Your task to perform on an android device: Search for "usb-b" on ebay, select the first entry, add it to the cart, then select checkout. Image 0: 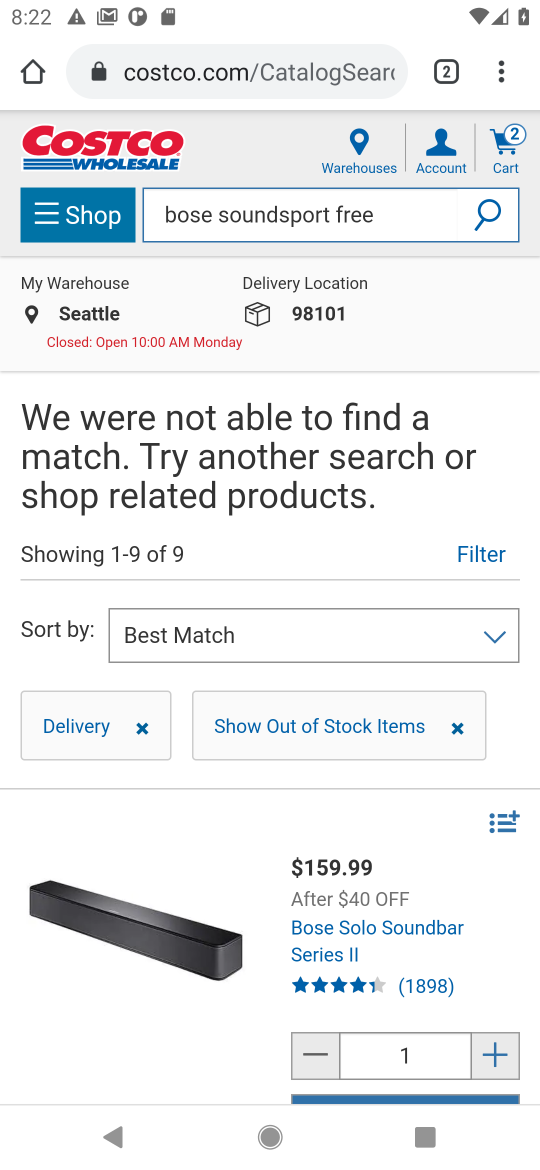
Step 0: click (254, 73)
Your task to perform on an android device: Search for "usb-b" on ebay, select the first entry, add it to the cart, then select checkout. Image 1: 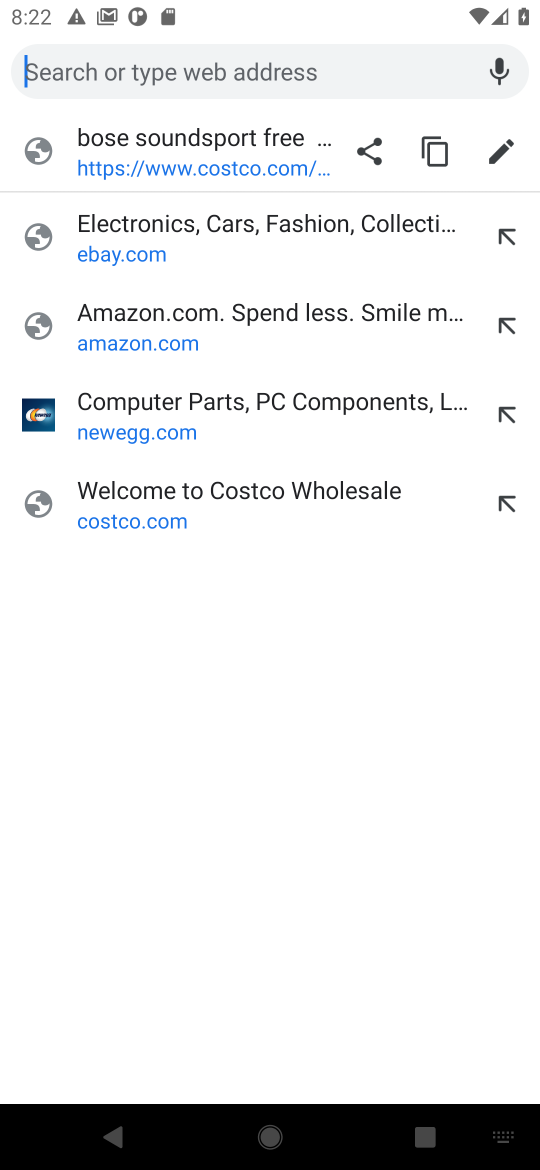
Step 1: click (104, 250)
Your task to perform on an android device: Search for "usb-b" on ebay, select the first entry, add it to the cart, then select checkout. Image 2: 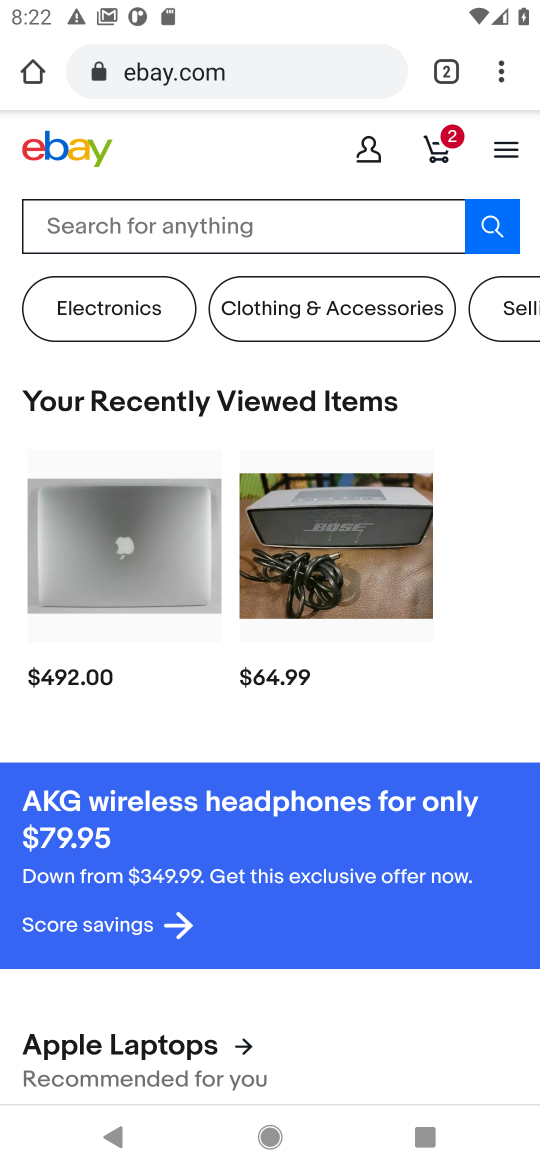
Step 2: click (36, 768)
Your task to perform on an android device: Search for "usb-b" on ebay, select the first entry, add it to the cart, then select checkout. Image 3: 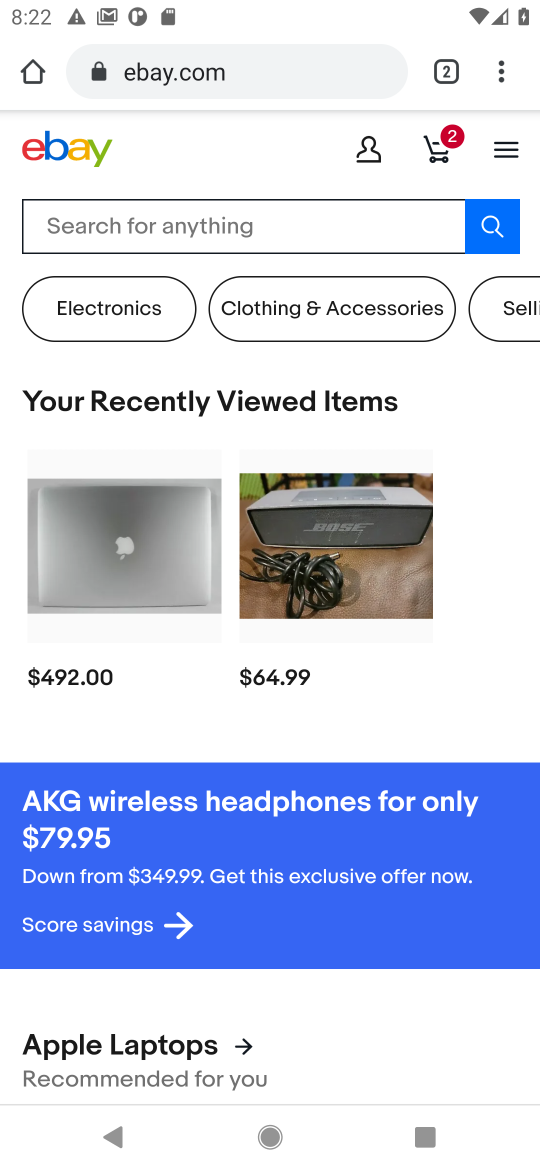
Step 3: click (205, 217)
Your task to perform on an android device: Search for "usb-b" on ebay, select the first entry, add it to the cart, then select checkout. Image 4: 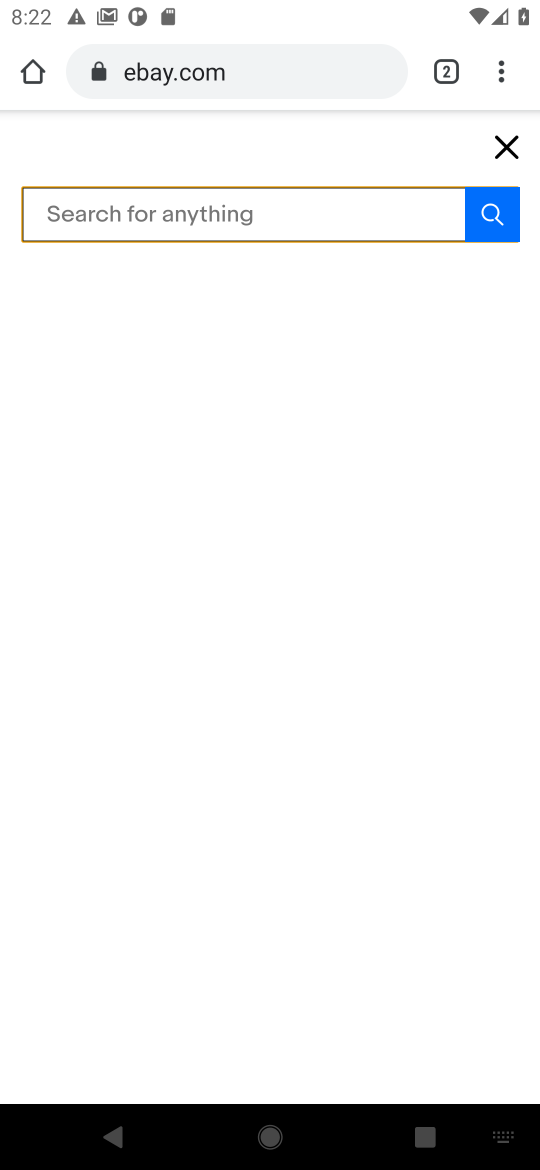
Step 4: type "usb-b"
Your task to perform on an android device: Search for "usb-b" on ebay, select the first entry, add it to the cart, then select checkout. Image 5: 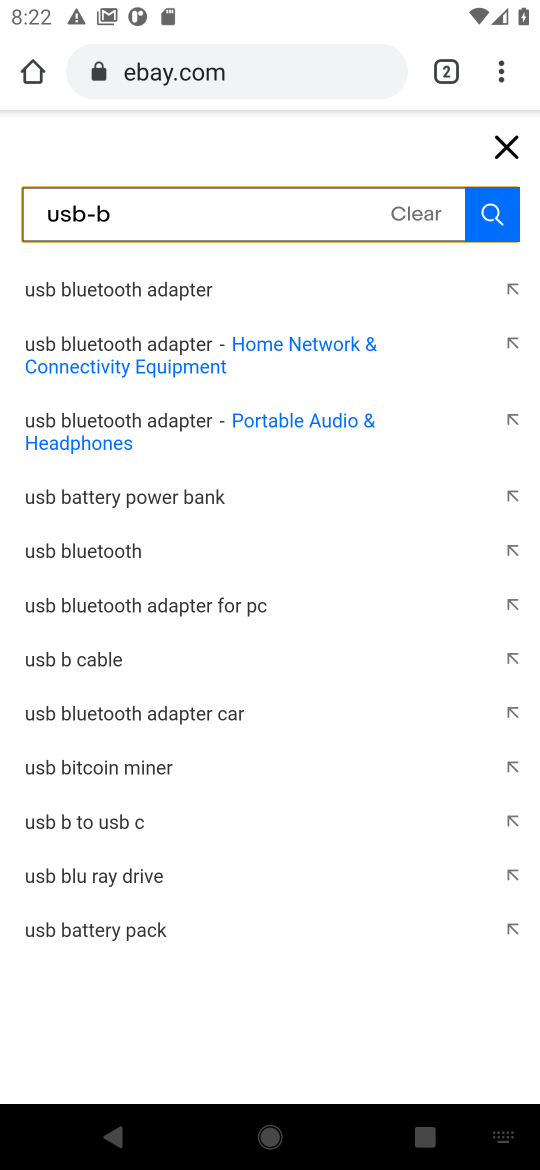
Step 5: click (491, 221)
Your task to perform on an android device: Search for "usb-b" on ebay, select the first entry, add it to the cart, then select checkout. Image 6: 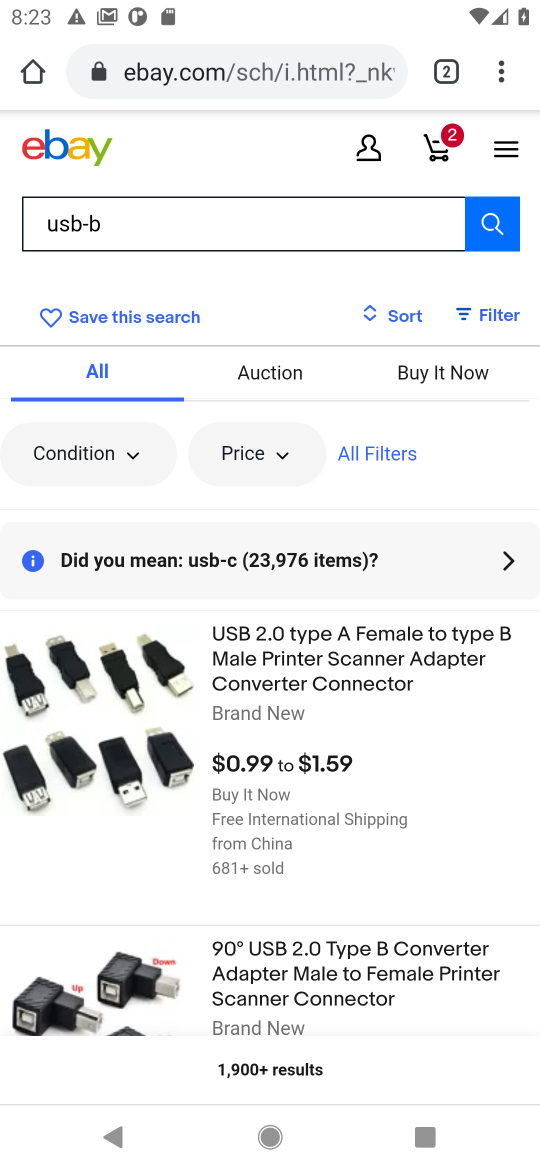
Step 6: task complete